Your task to perform on an android device: Open Google Maps and go to "Timeline" Image 0: 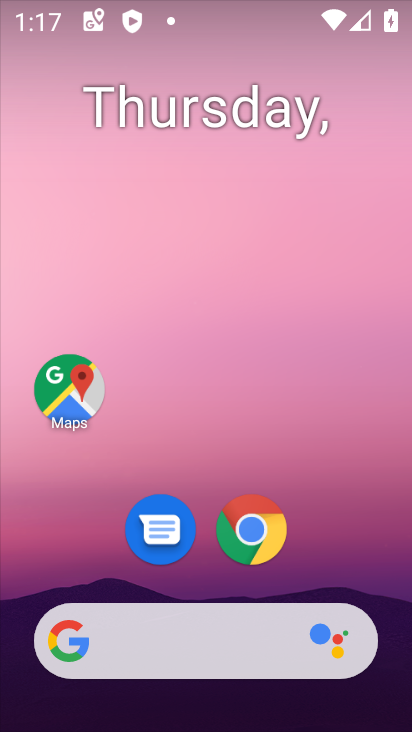
Step 0: drag from (333, 346) to (338, 140)
Your task to perform on an android device: Open Google Maps and go to "Timeline" Image 1: 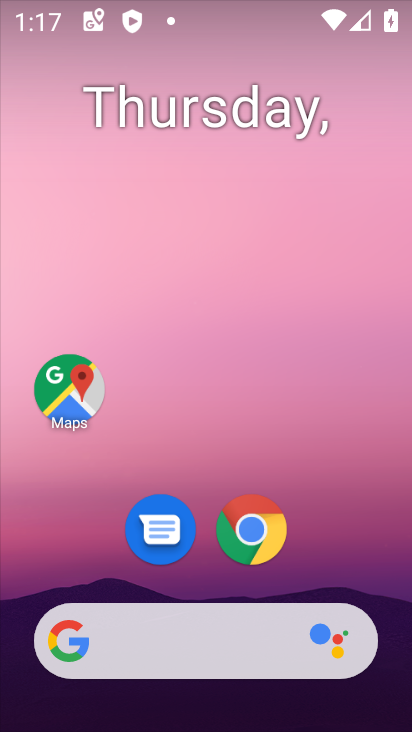
Step 1: click (48, 395)
Your task to perform on an android device: Open Google Maps and go to "Timeline" Image 2: 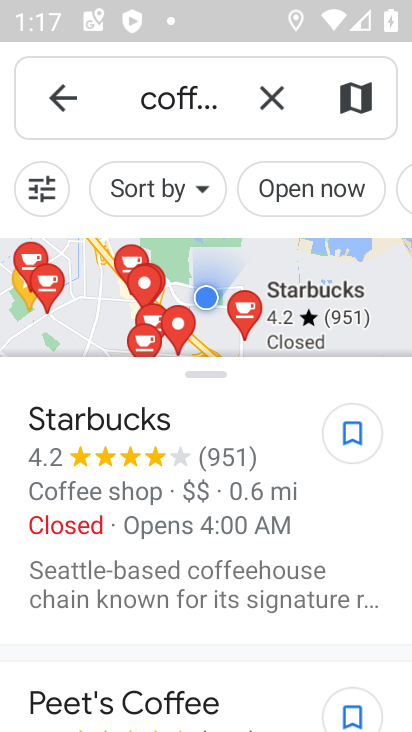
Step 2: click (61, 110)
Your task to perform on an android device: Open Google Maps and go to "Timeline" Image 3: 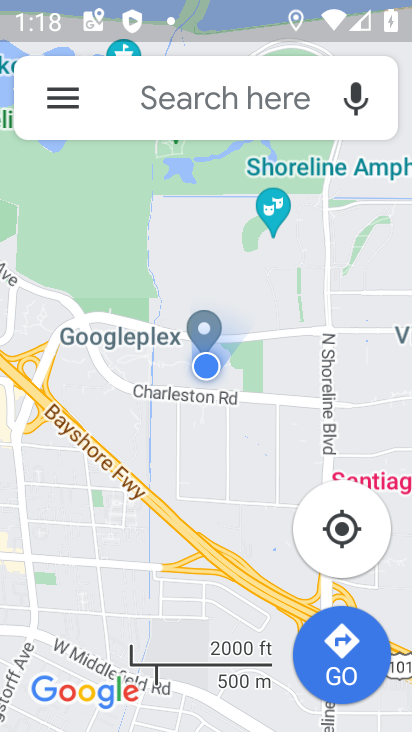
Step 3: click (62, 105)
Your task to perform on an android device: Open Google Maps and go to "Timeline" Image 4: 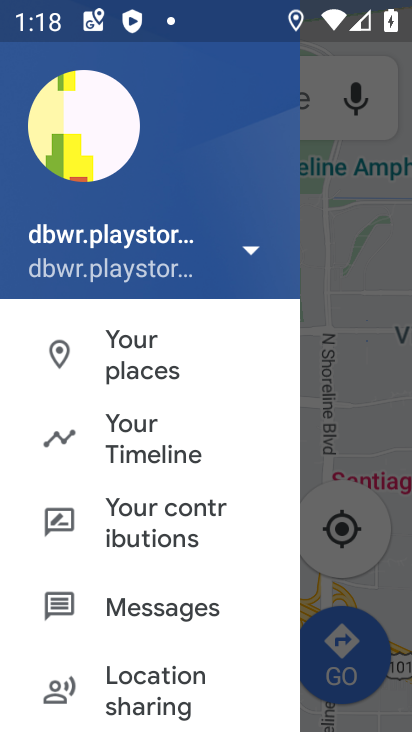
Step 4: click (94, 441)
Your task to perform on an android device: Open Google Maps and go to "Timeline" Image 5: 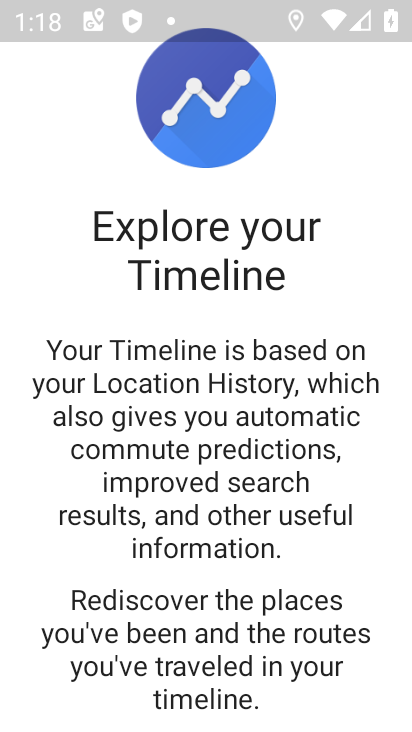
Step 5: drag from (347, 618) to (387, 254)
Your task to perform on an android device: Open Google Maps and go to "Timeline" Image 6: 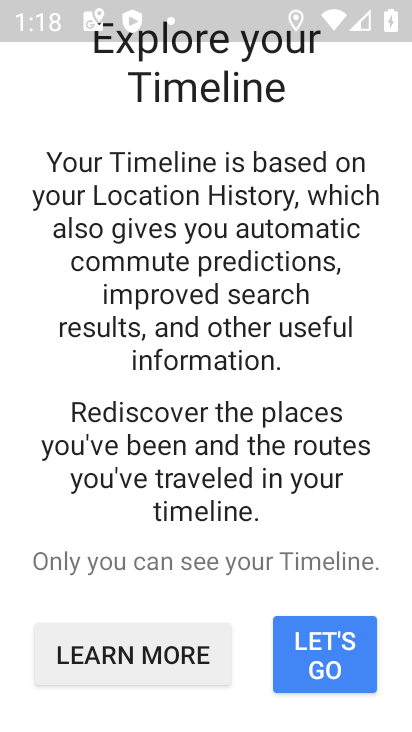
Step 6: click (311, 648)
Your task to perform on an android device: Open Google Maps and go to "Timeline" Image 7: 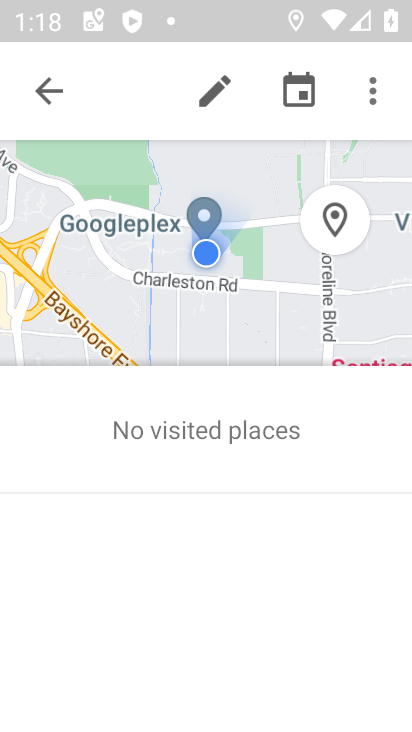
Step 7: task complete